Your task to perform on an android device: check google app version Image 0: 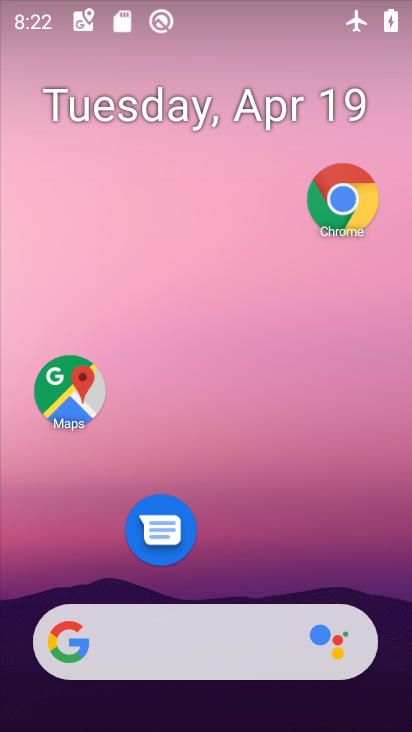
Step 0: click (263, 96)
Your task to perform on an android device: check google app version Image 1: 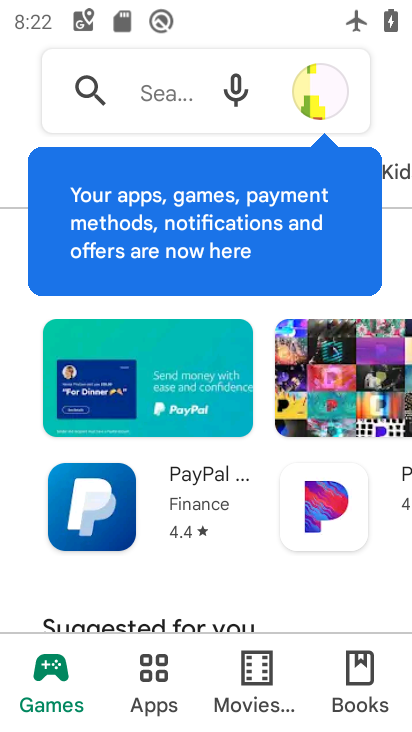
Step 1: press home button
Your task to perform on an android device: check google app version Image 2: 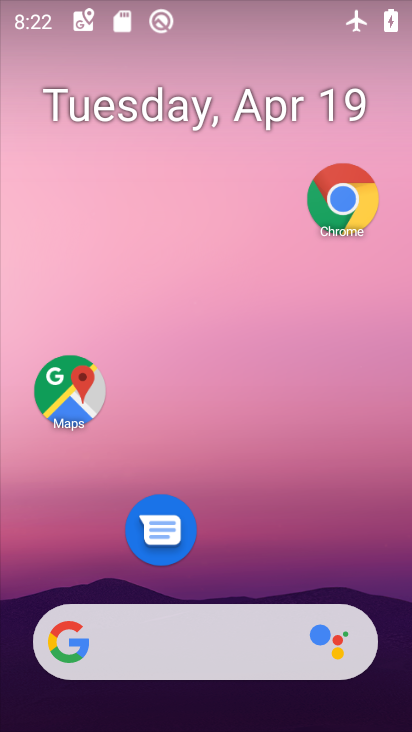
Step 2: drag from (218, 575) to (274, 85)
Your task to perform on an android device: check google app version Image 3: 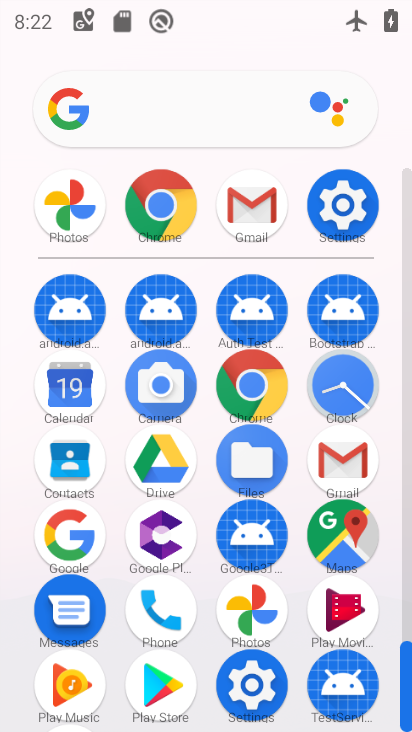
Step 3: click (63, 544)
Your task to perform on an android device: check google app version Image 4: 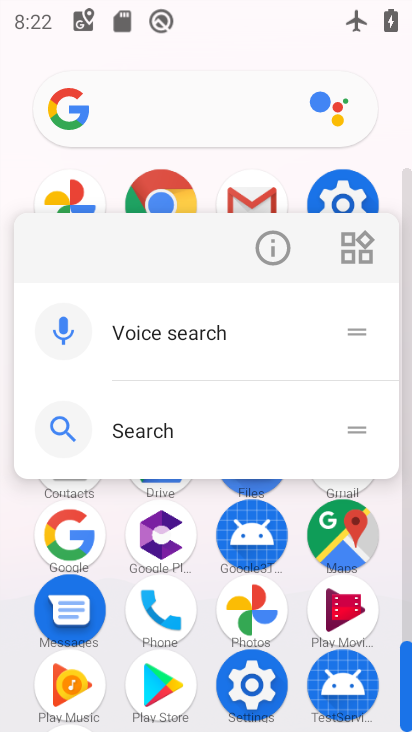
Step 4: click (274, 238)
Your task to perform on an android device: check google app version Image 5: 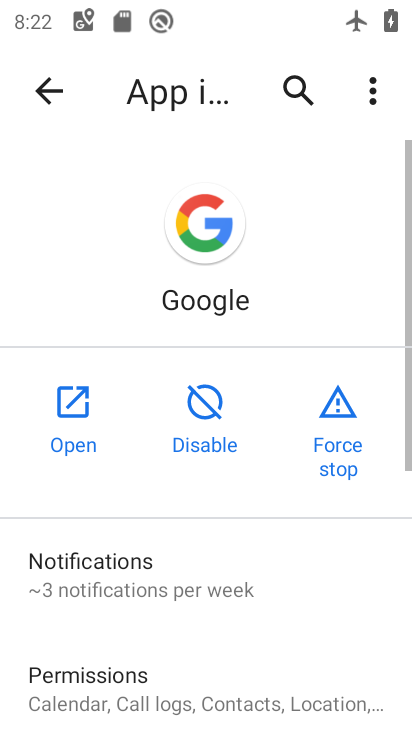
Step 5: click (81, 396)
Your task to perform on an android device: check google app version Image 6: 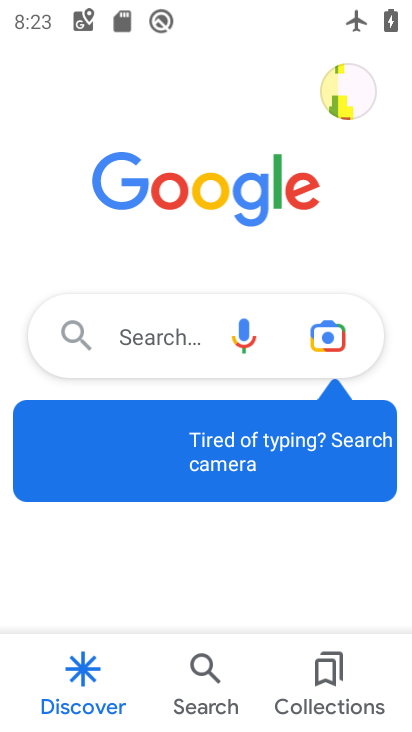
Step 6: drag from (215, 574) to (301, 106)
Your task to perform on an android device: check google app version Image 7: 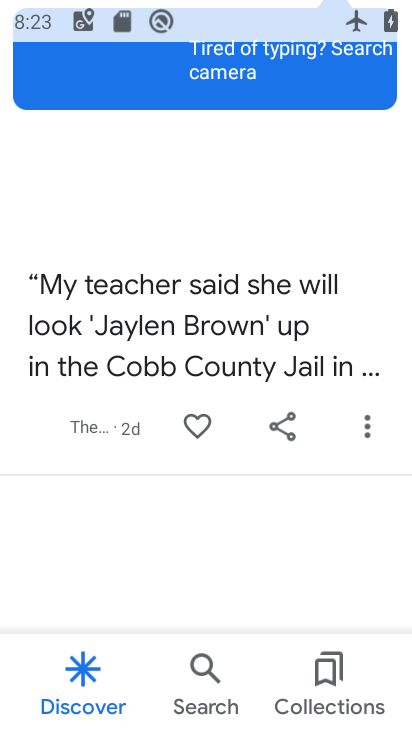
Step 7: drag from (203, 493) to (244, 220)
Your task to perform on an android device: check google app version Image 8: 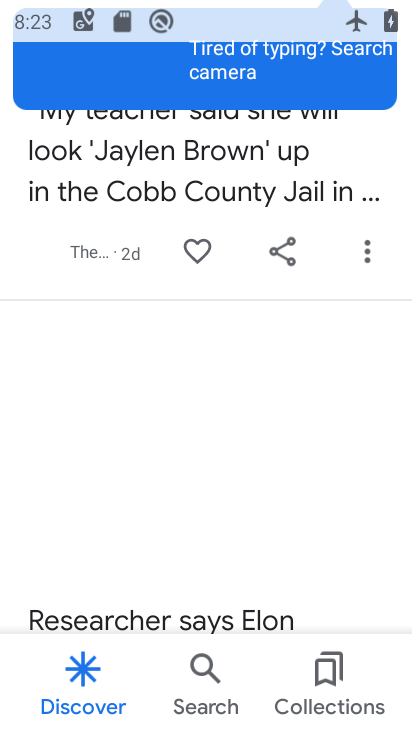
Step 8: drag from (189, 530) to (234, 254)
Your task to perform on an android device: check google app version Image 9: 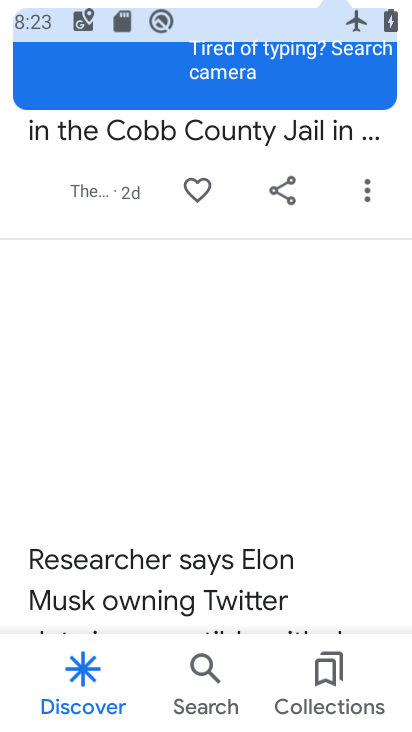
Step 9: drag from (250, 222) to (286, 692)
Your task to perform on an android device: check google app version Image 10: 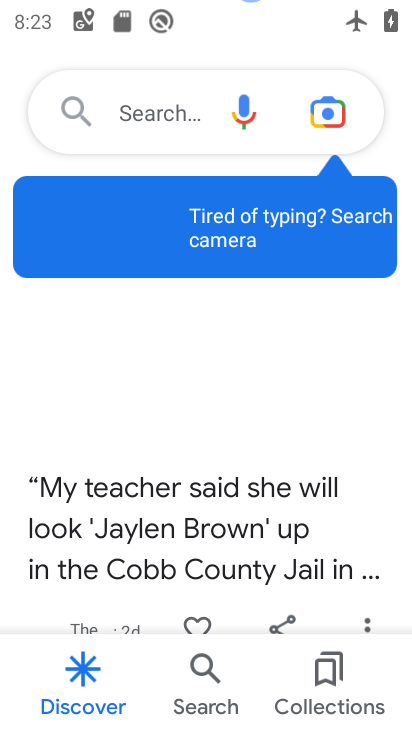
Step 10: drag from (270, 358) to (304, 630)
Your task to perform on an android device: check google app version Image 11: 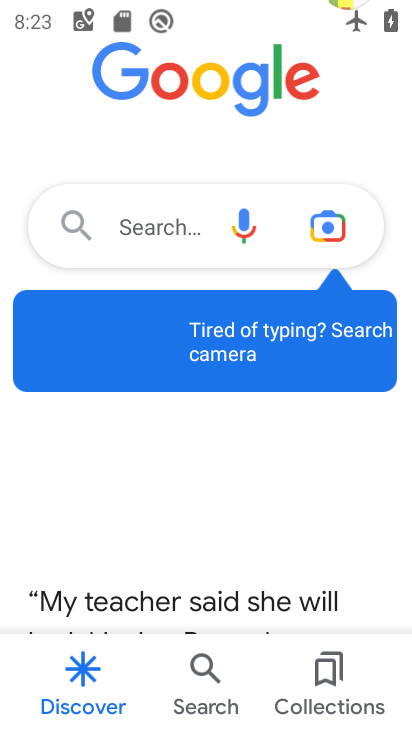
Step 11: click (323, 683)
Your task to perform on an android device: check google app version Image 12: 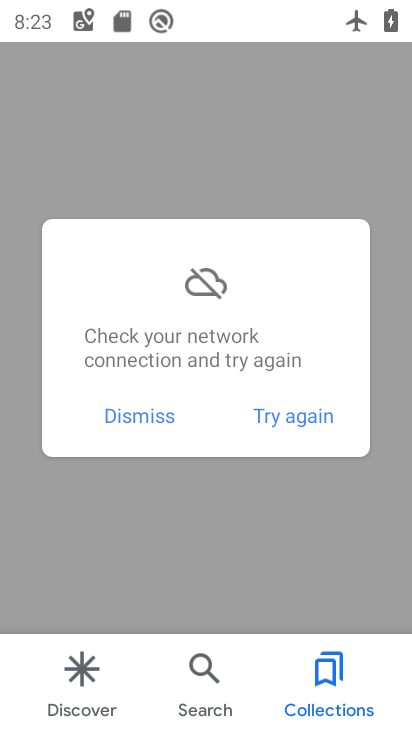
Step 12: click (287, 412)
Your task to perform on an android device: check google app version Image 13: 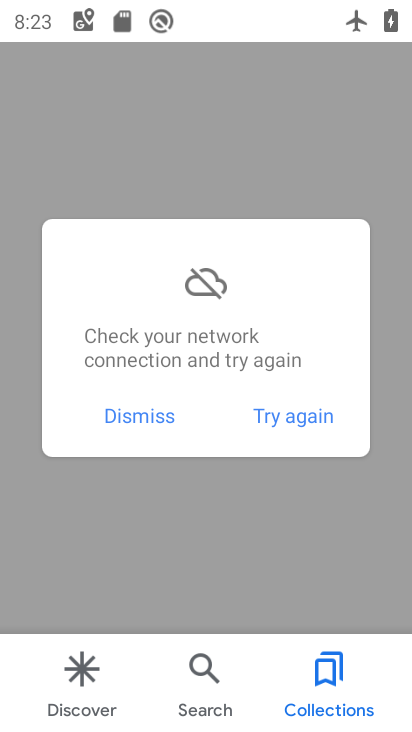
Step 13: click (285, 403)
Your task to perform on an android device: check google app version Image 14: 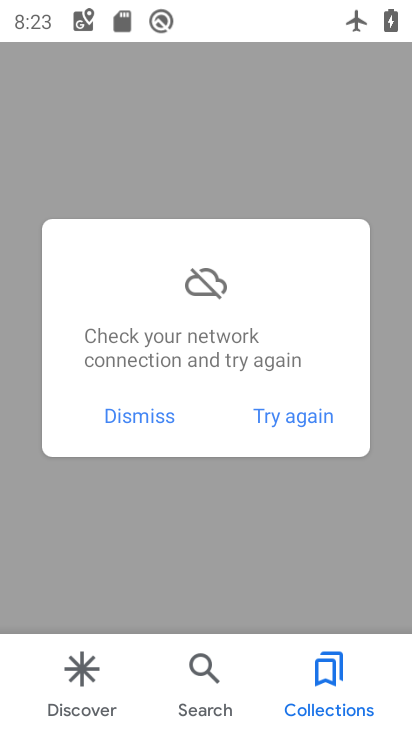
Step 14: click (134, 412)
Your task to perform on an android device: check google app version Image 15: 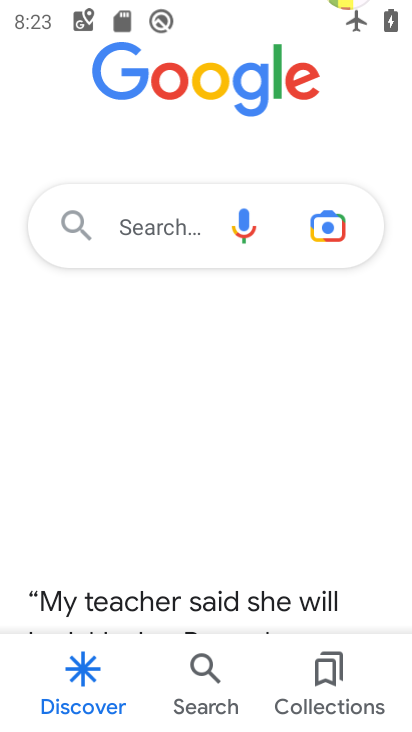
Step 15: drag from (279, 305) to (300, 657)
Your task to perform on an android device: check google app version Image 16: 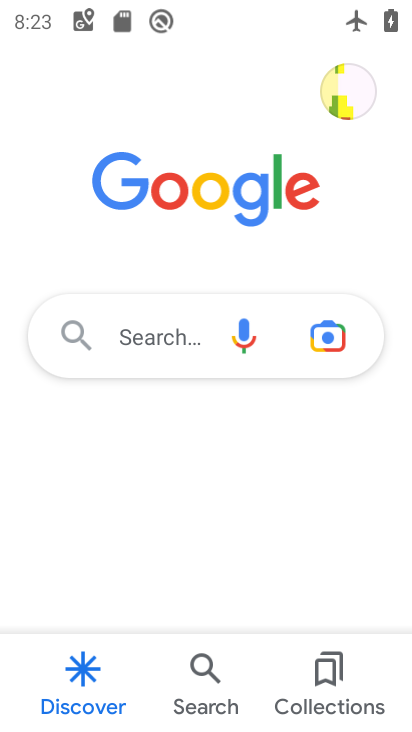
Step 16: click (356, 86)
Your task to perform on an android device: check google app version Image 17: 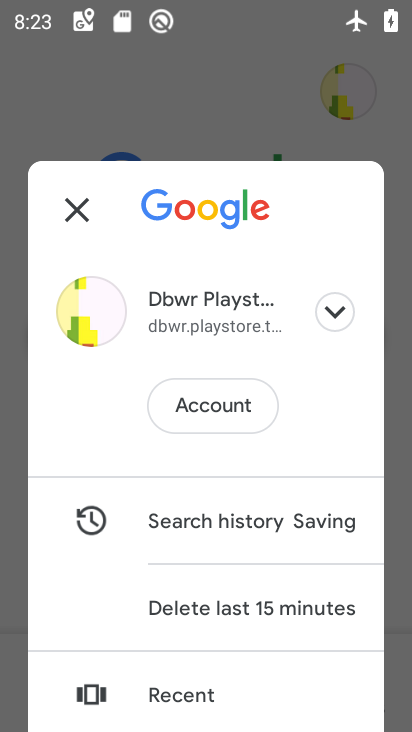
Step 17: drag from (186, 566) to (293, 152)
Your task to perform on an android device: check google app version Image 18: 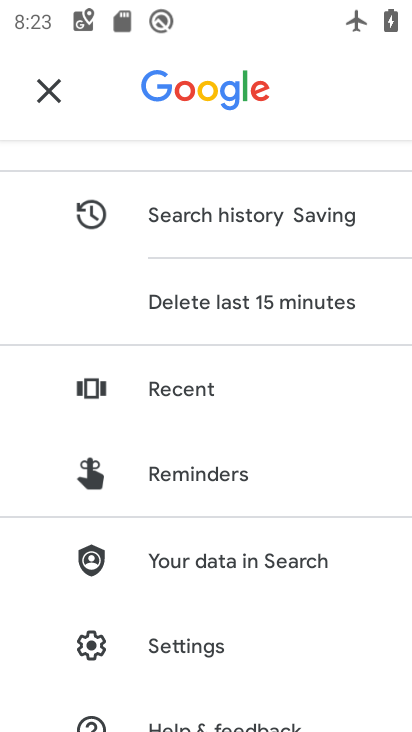
Step 18: click (223, 655)
Your task to perform on an android device: check google app version Image 19: 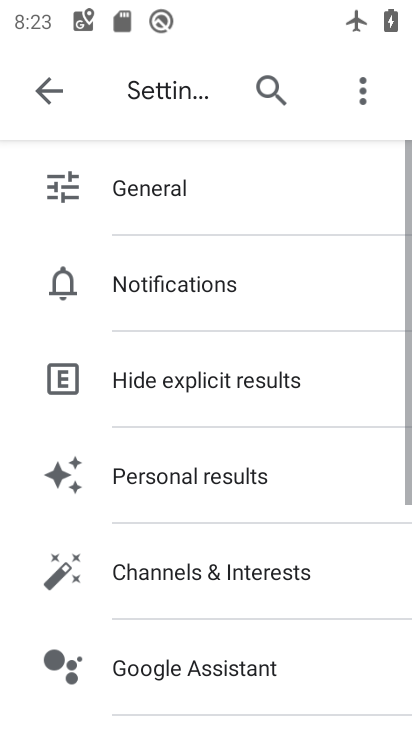
Step 19: drag from (201, 509) to (253, 110)
Your task to perform on an android device: check google app version Image 20: 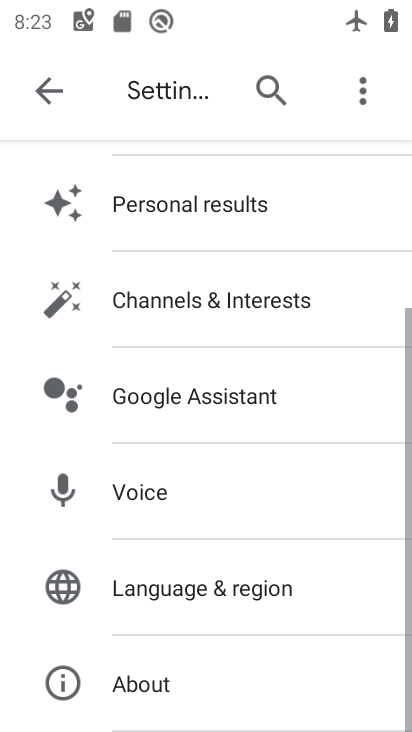
Step 20: drag from (178, 642) to (212, 303)
Your task to perform on an android device: check google app version Image 21: 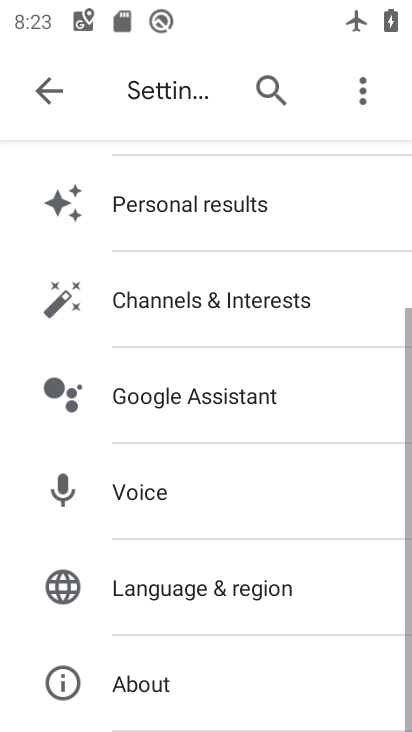
Step 21: drag from (185, 321) to (333, 67)
Your task to perform on an android device: check google app version Image 22: 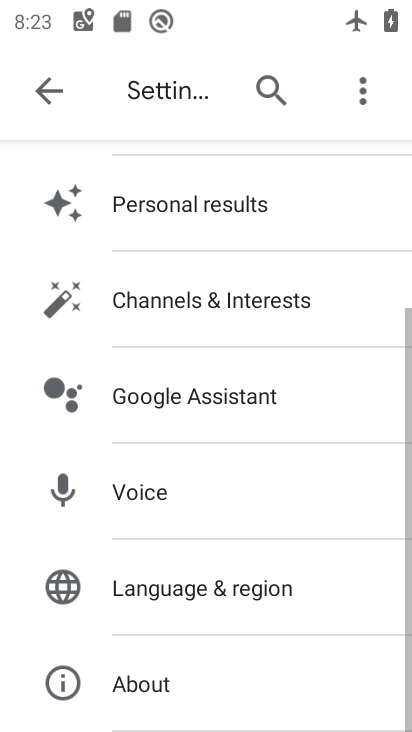
Step 22: click (147, 682)
Your task to perform on an android device: check google app version Image 23: 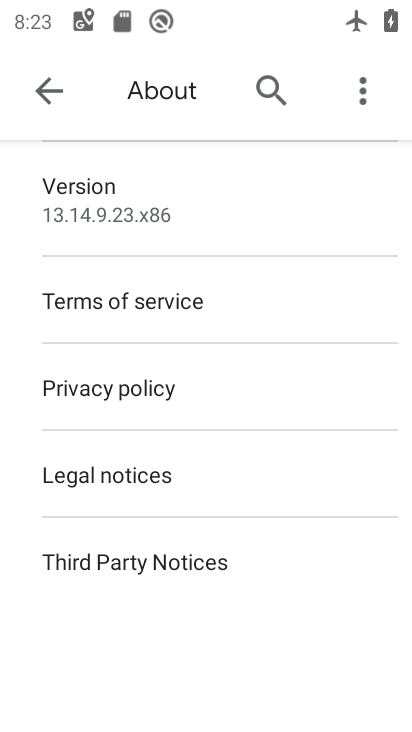
Step 23: click (130, 198)
Your task to perform on an android device: check google app version Image 24: 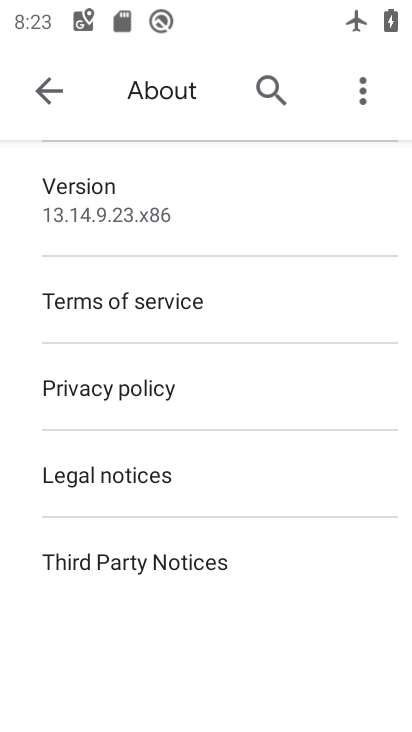
Step 24: click (178, 193)
Your task to perform on an android device: check google app version Image 25: 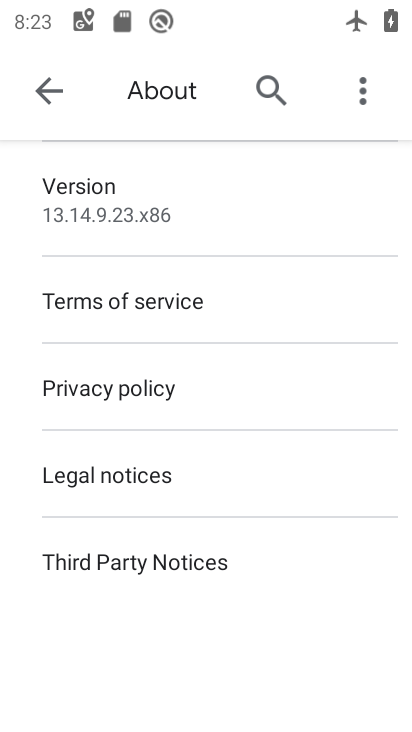
Step 25: task complete